Your task to perform on an android device: turn off location history Image 0: 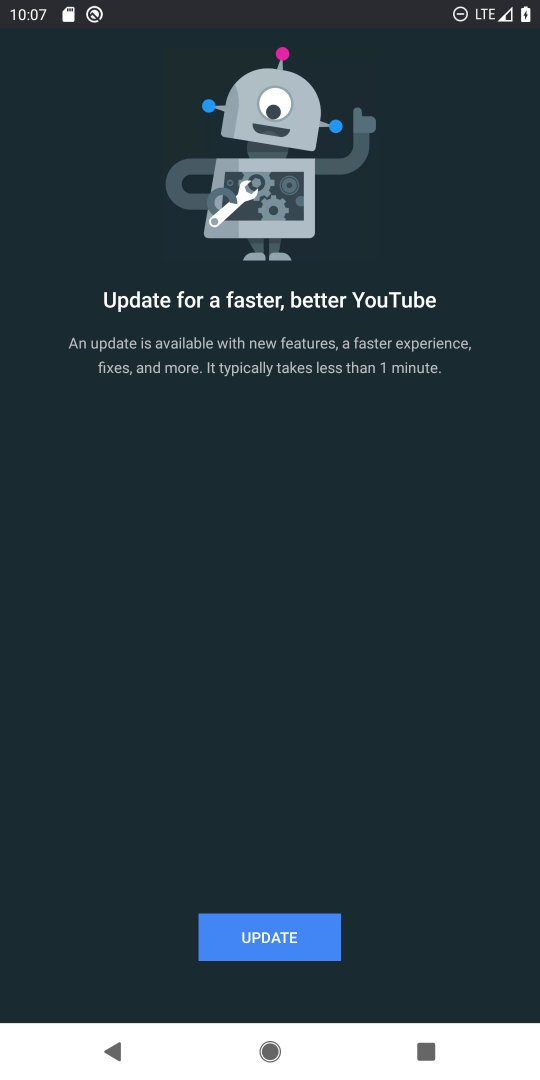
Step 0: press home button
Your task to perform on an android device: turn off location history Image 1: 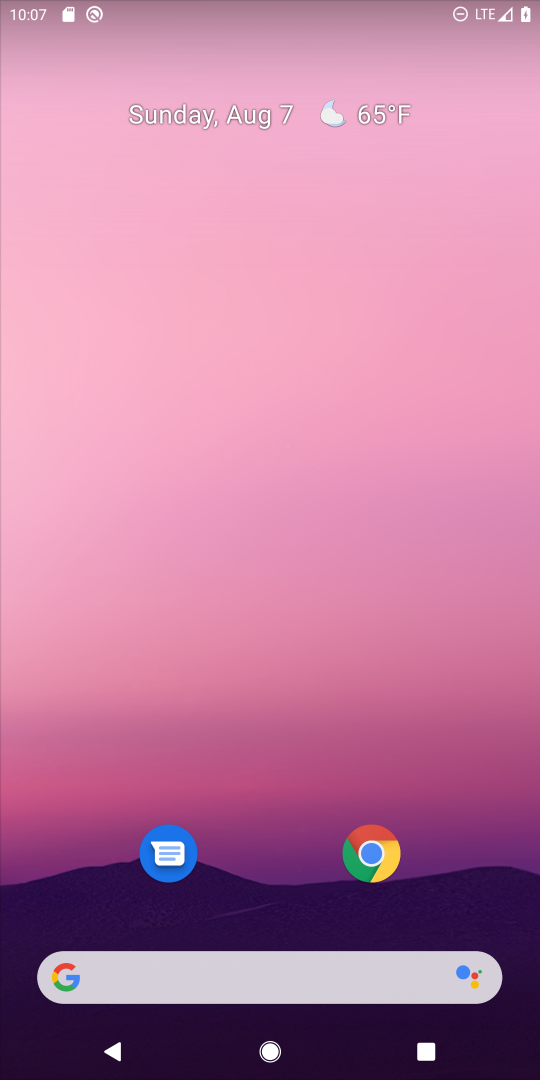
Step 1: drag from (323, 933) to (257, 255)
Your task to perform on an android device: turn off location history Image 2: 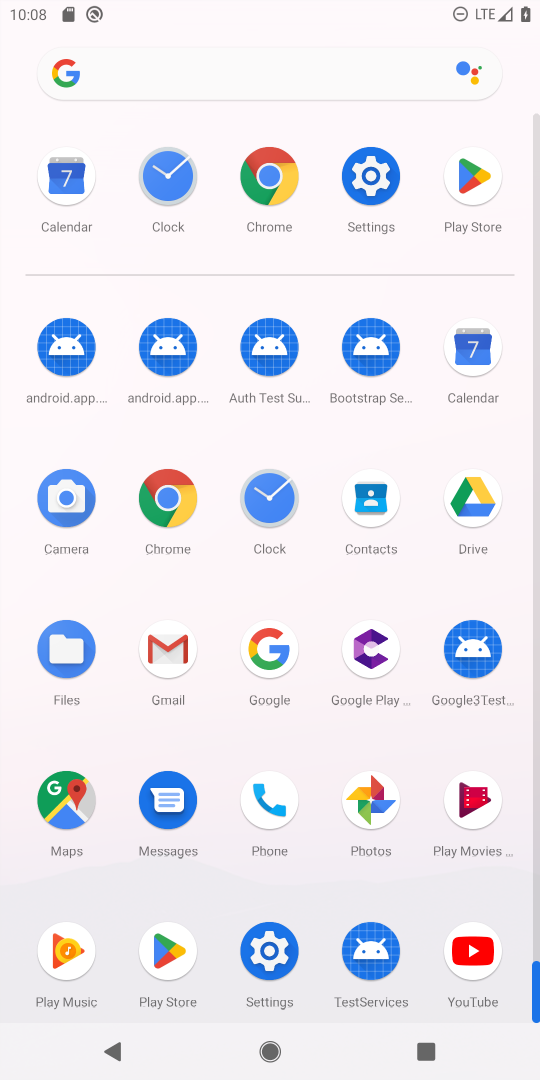
Step 2: click (360, 168)
Your task to perform on an android device: turn off location history Image 3: 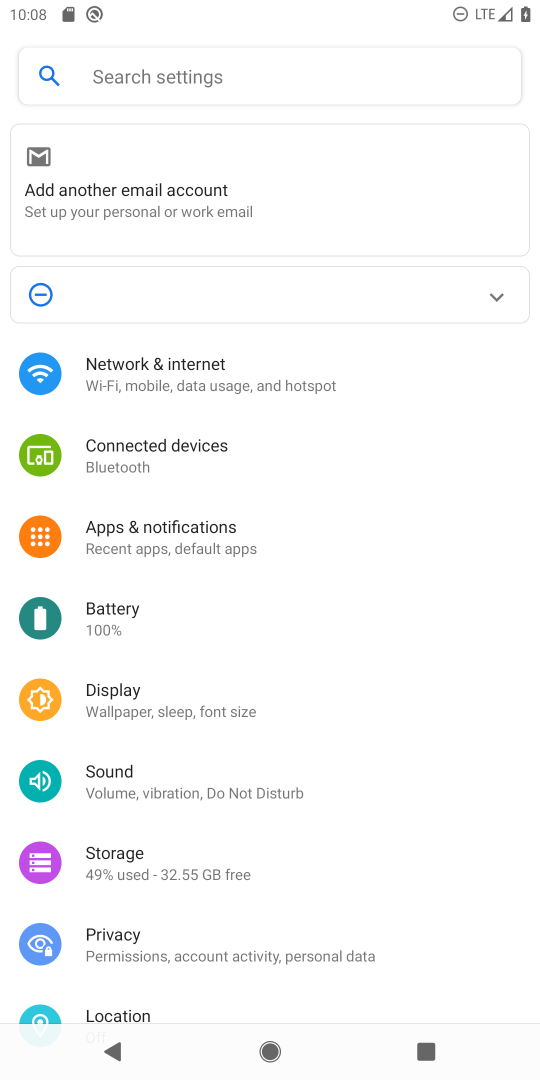
Step 3: drag from (161, 917) to (279, 263)
Your task to perform on an android device: turn off location history Image 4: 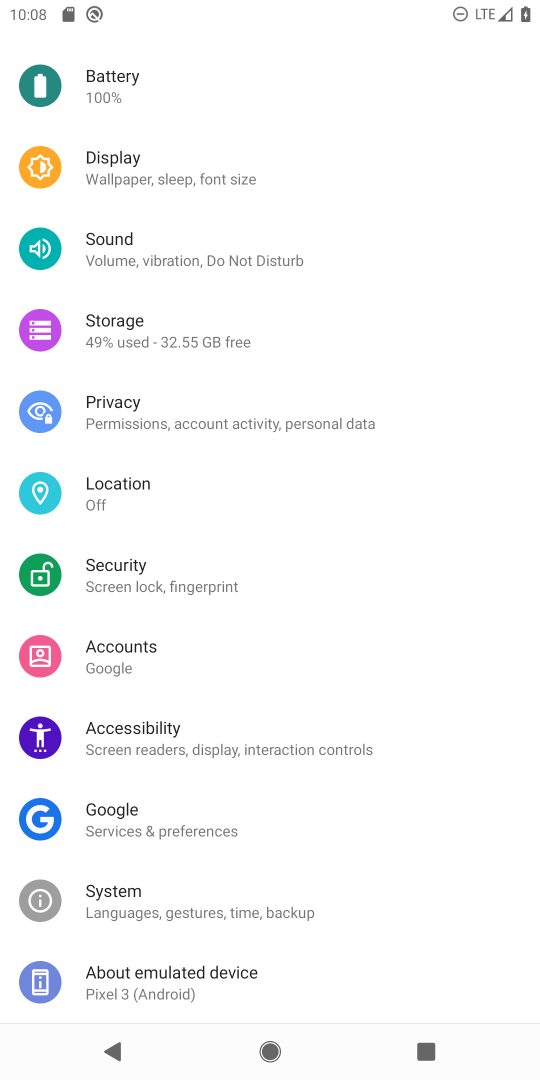
Step 4: click (157, 496)
Your task to perform on an android device: turn off location history Image 5: 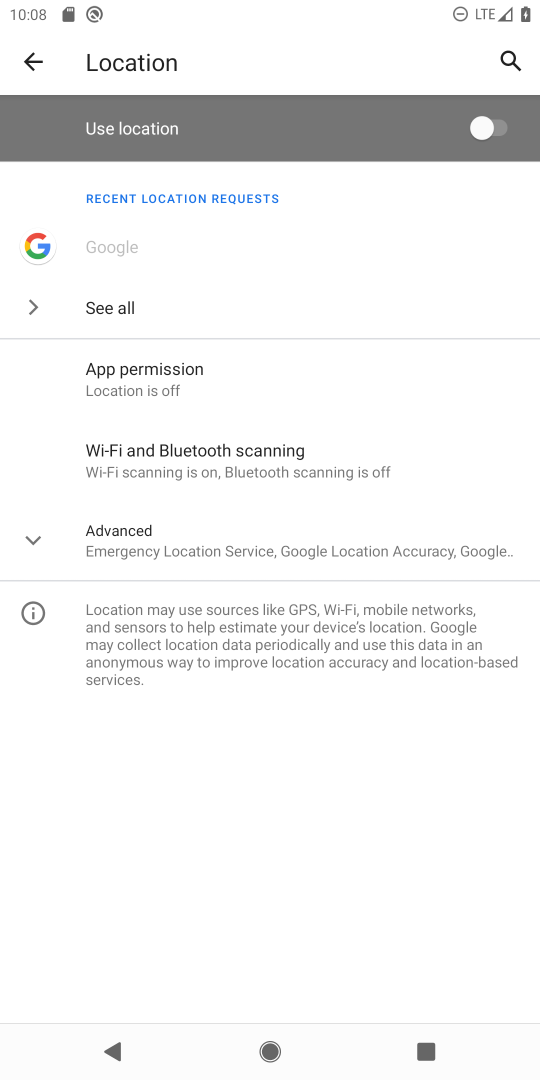
Step 5: task complete